Your task to perform on an android device: read, delete, or share a saved page in the chrome app Image 0: 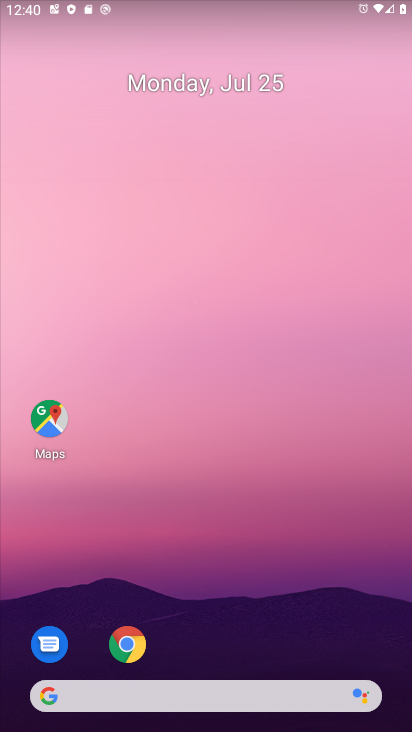
Step 0: drag from (336, 655) to (144, 60)
Your task to perform on an android device: read, delete, or share a saved page in the chrome app Image 1: 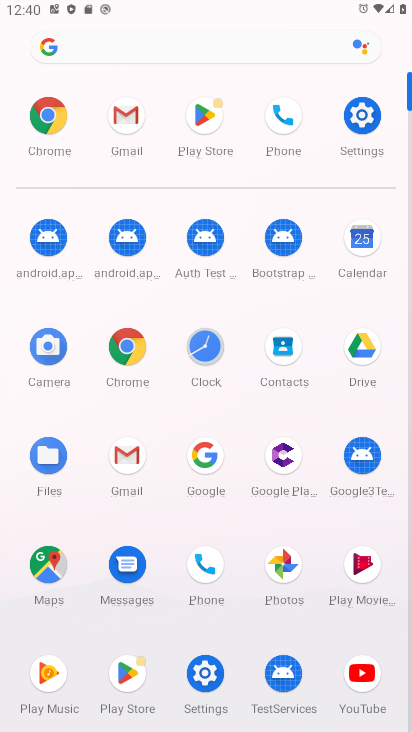
Step 1: click (135, 364)
Your task to perform on an android device: read, delete, or share a saved page in the chrome app Image 2: 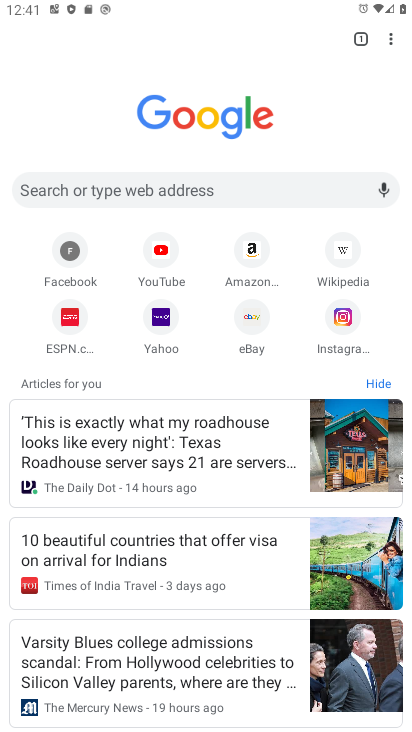
Step 2: task complete